Your task to perform on an android device: Show the shopping cart on amazon. Add bose quietcomfort 35 to the cart on amazon Image 0: 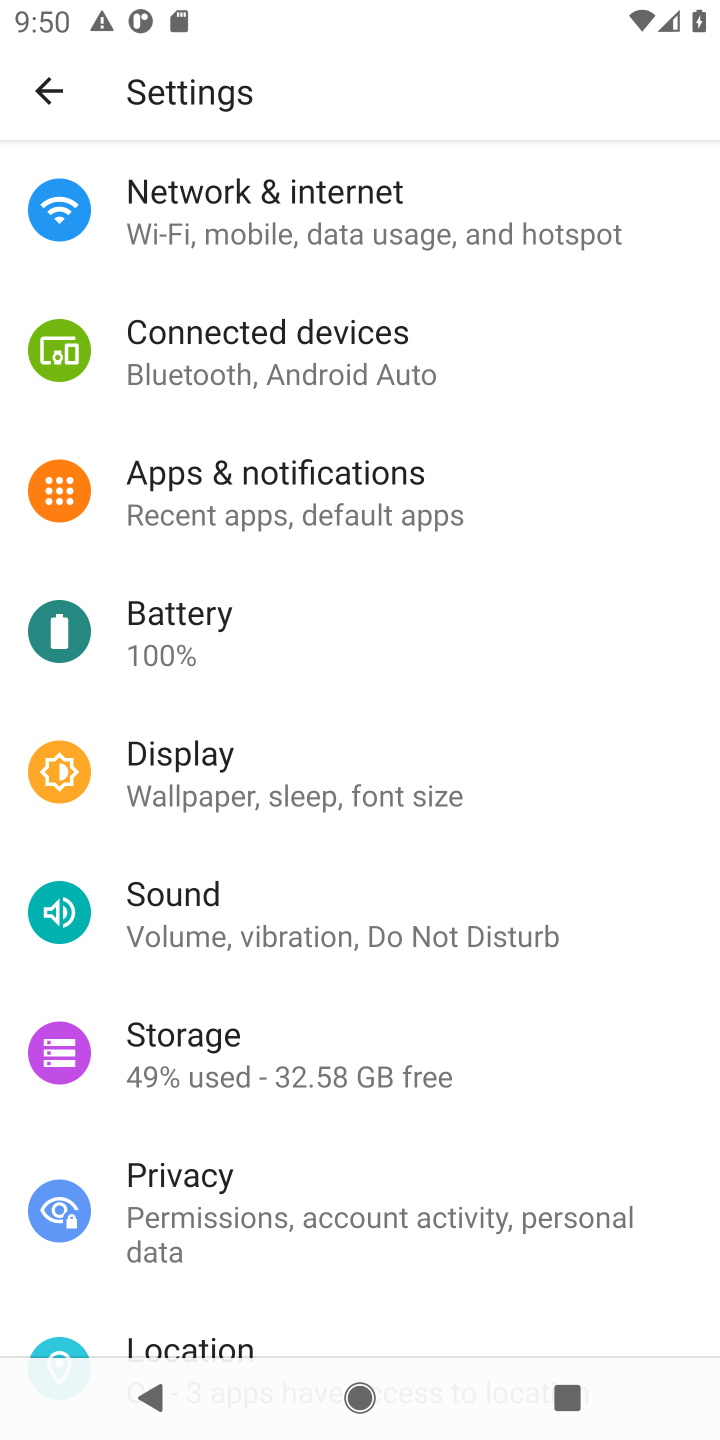
Step 0: press home button
Your task to perform on an android device: Show the shopping cart on amazon. Add bose quietcomfort 35 to the cart on amazon Image 1: 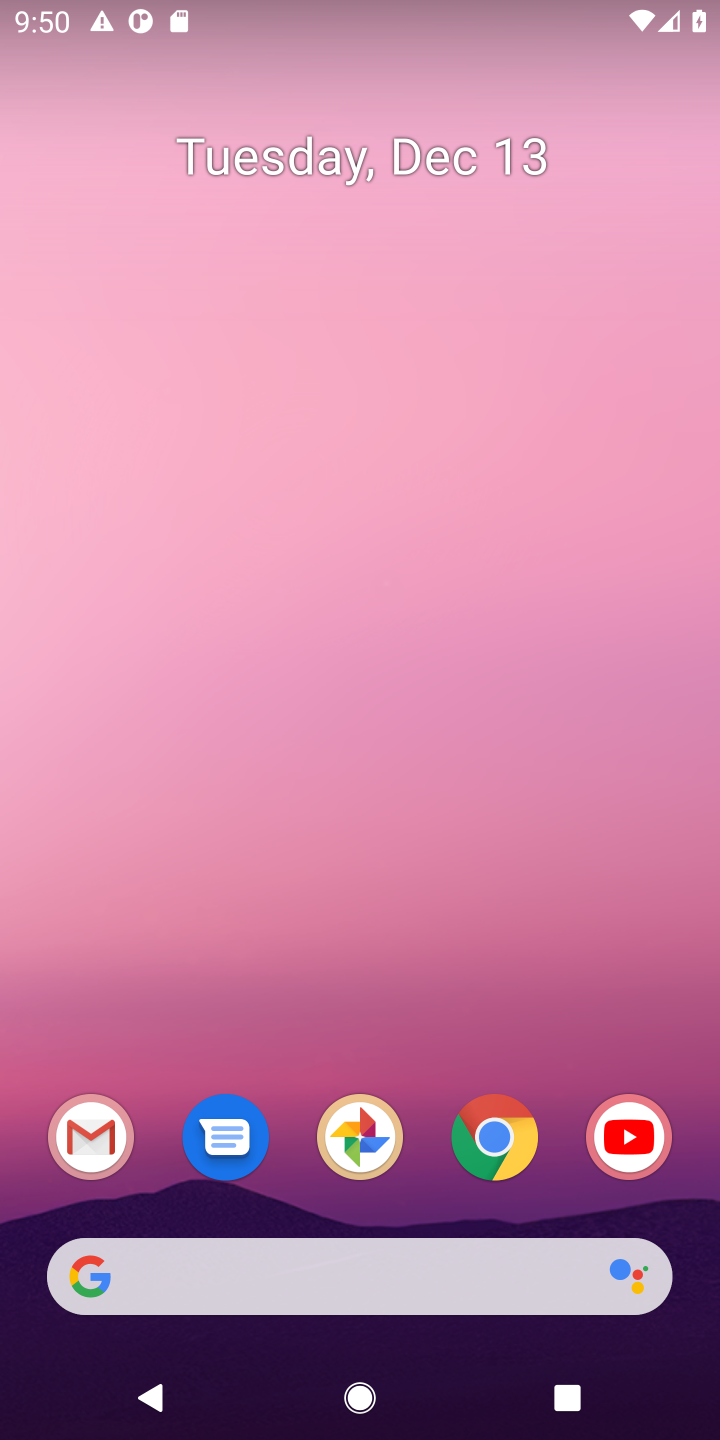
Step 1: click (513, 1141)
Your task to perform on an android device: Show the shopping cart on amazon. Add bose quietcomfort 35 to the cart on amazon Image 2: 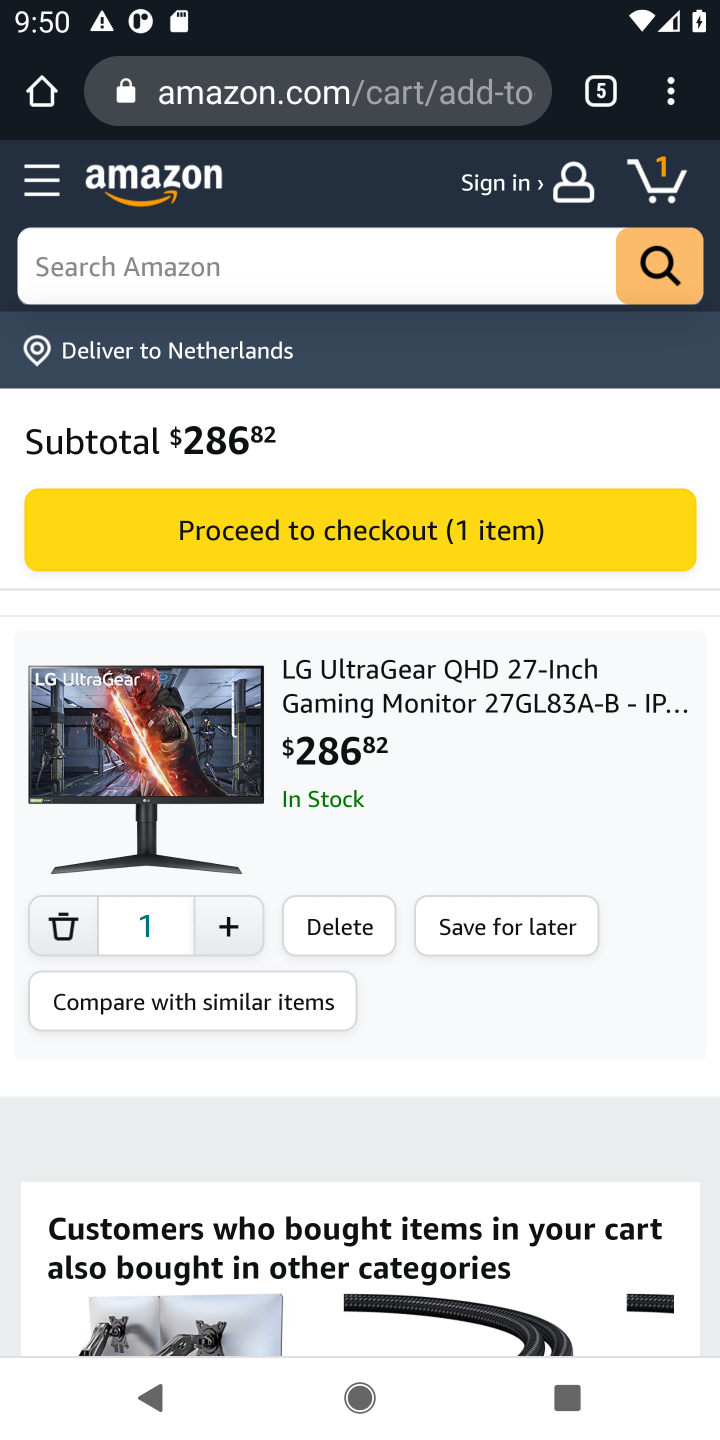
Step 2: click (482, 271)
Your task to perform on an android device: Show the shopping cart on amazon. Add bose quietcomfort 35 to the cart on amazon Image 3: 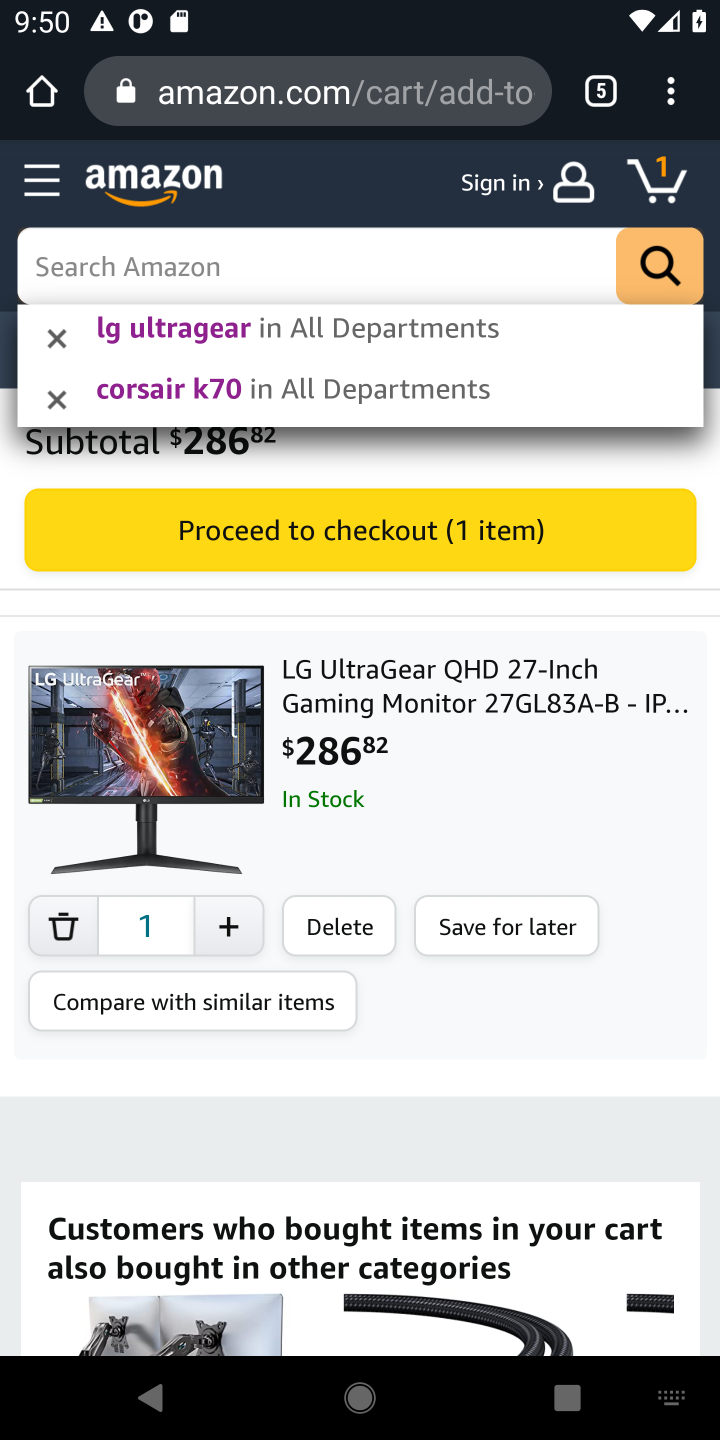
Step 3: type "bose quietcomfort 35"
Your task to perform on an android device: Show the shopping cart on amazon. Add bose quietcomfort 35 to the cart on amazon Image 4: 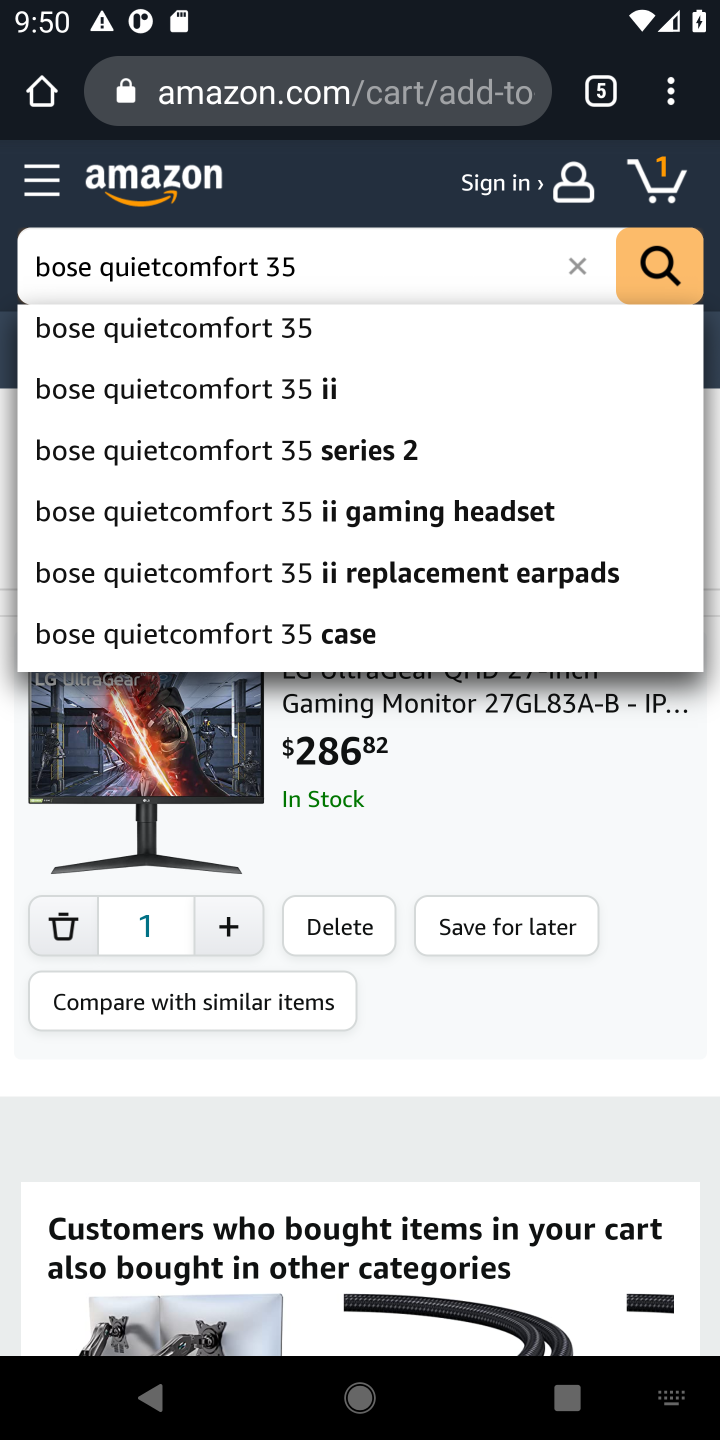
Step 4: click (258, 321)
Your task to perform on an android device: Show the shopping cart on amazon. Add bose quietcomfort 35 to the cart on amazon Image 5: 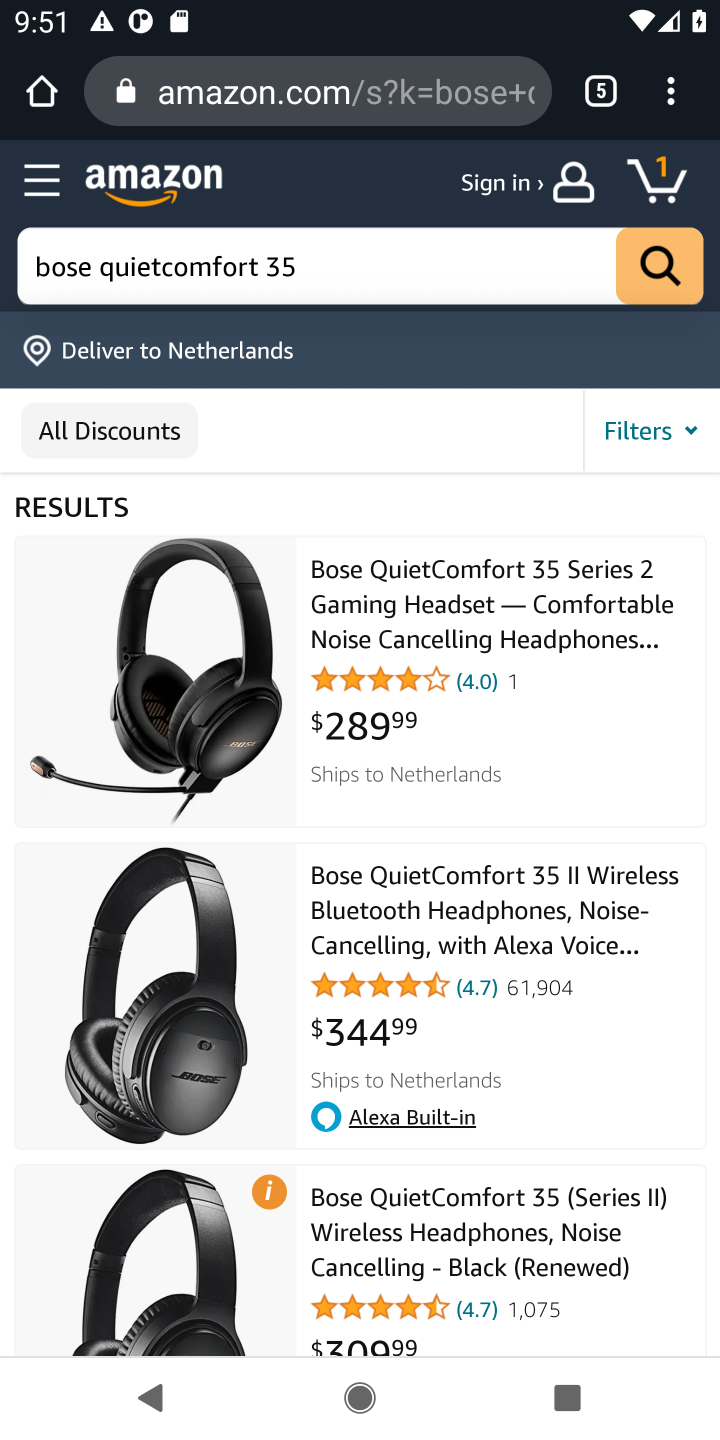
Step 5: click (411, 613)
Your task to perform on an android device: Show the shopping cart on amazon. Add bose quietcomfort 35 to the cart on amazon Image 6: 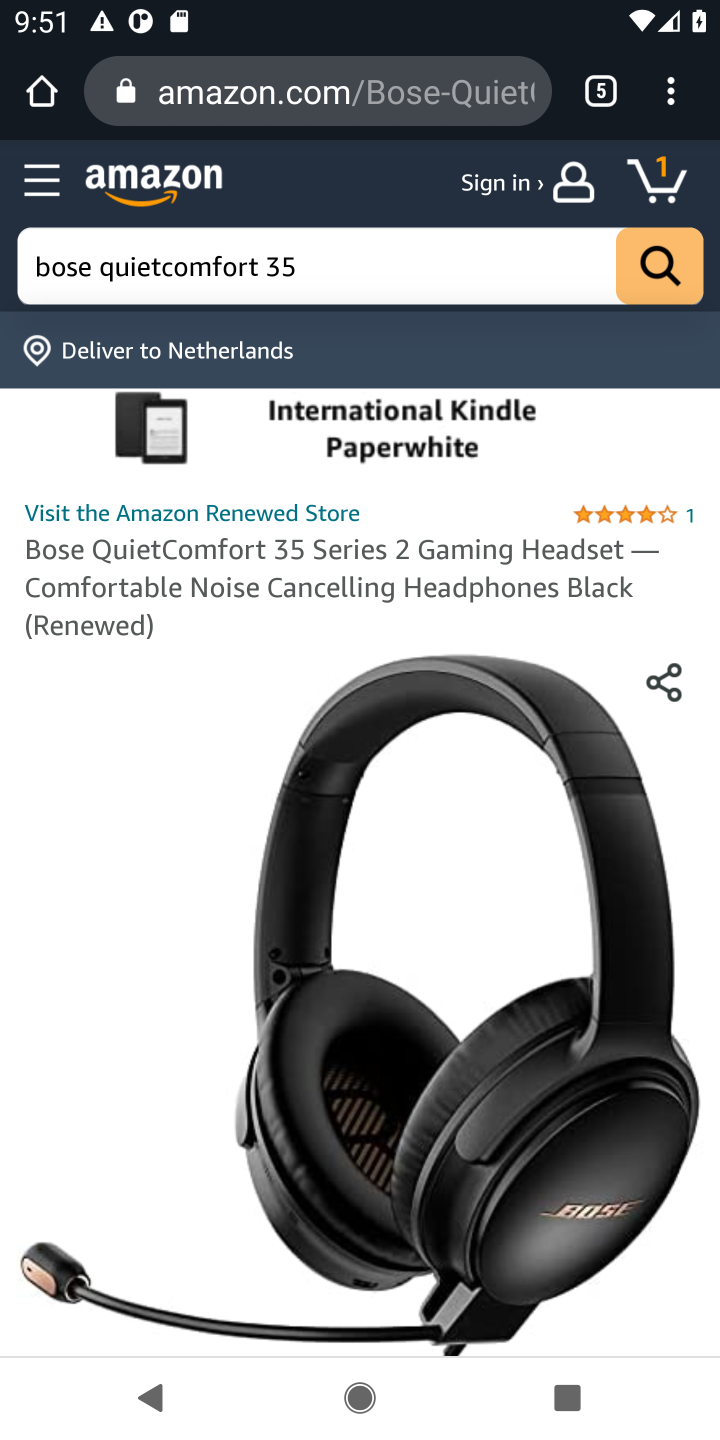
Step 6: drag from (366, 1254) to (589, 414)
Your task to perform on an android device: Show the shopping cart on amazon. Add bose quietcomfort 35 to the cart on amazon Image 7: 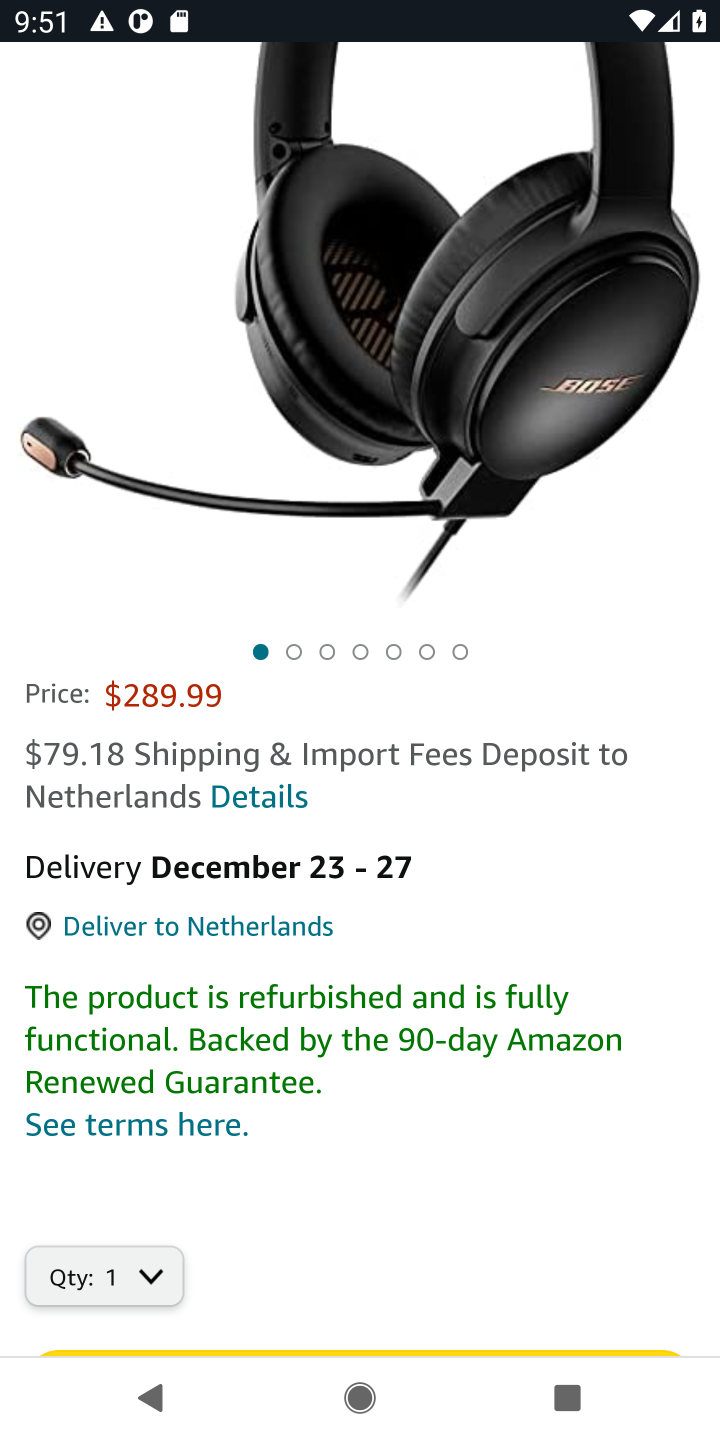
Step 7: drag from (414, 1100) to (513, 880)
Your task to perform on an android device: Show the shopping cart on amazon. Add bose quietcomfort 35 to the cart on amazon Image 8: 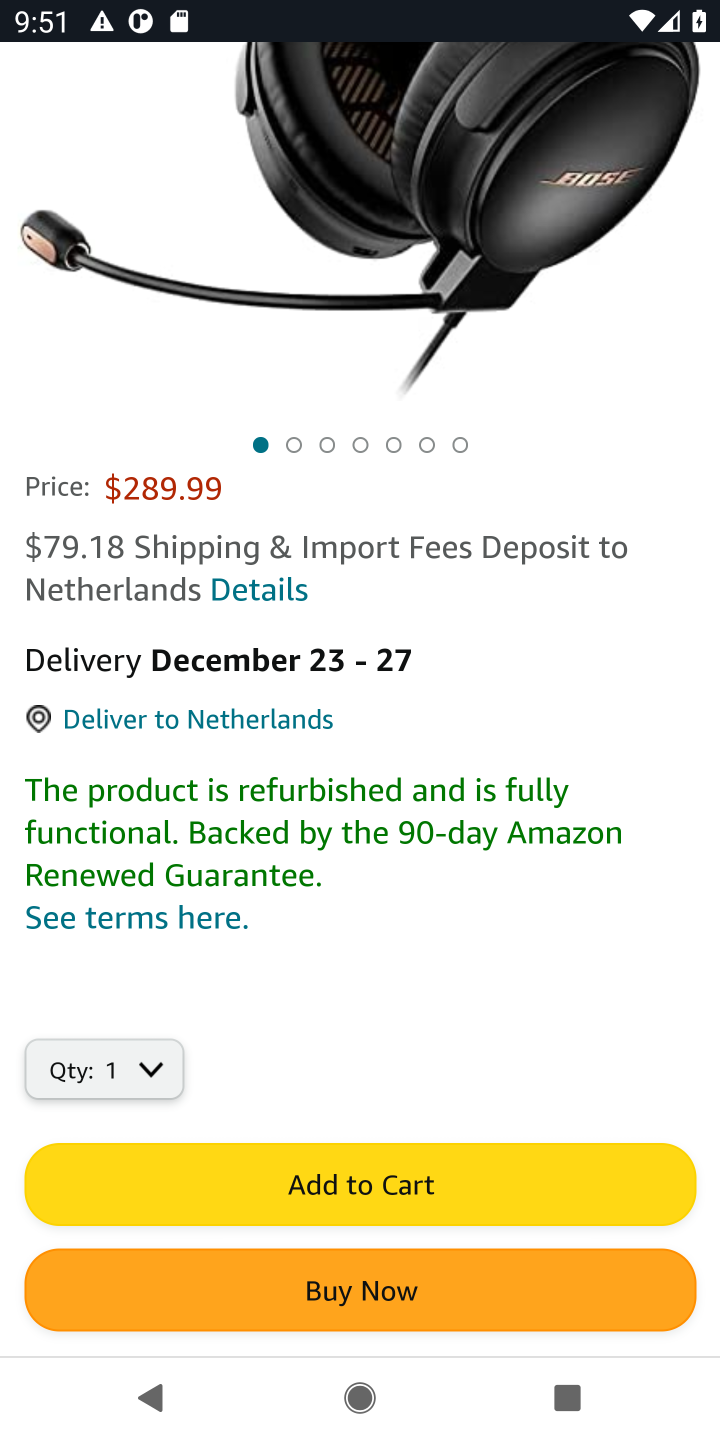
Step 8: click (311, 1185)
Your task to perform on an android device: Show the shopping cart on amazon. Add bose quietcomfort 35 to the cart on amazon Image 9: 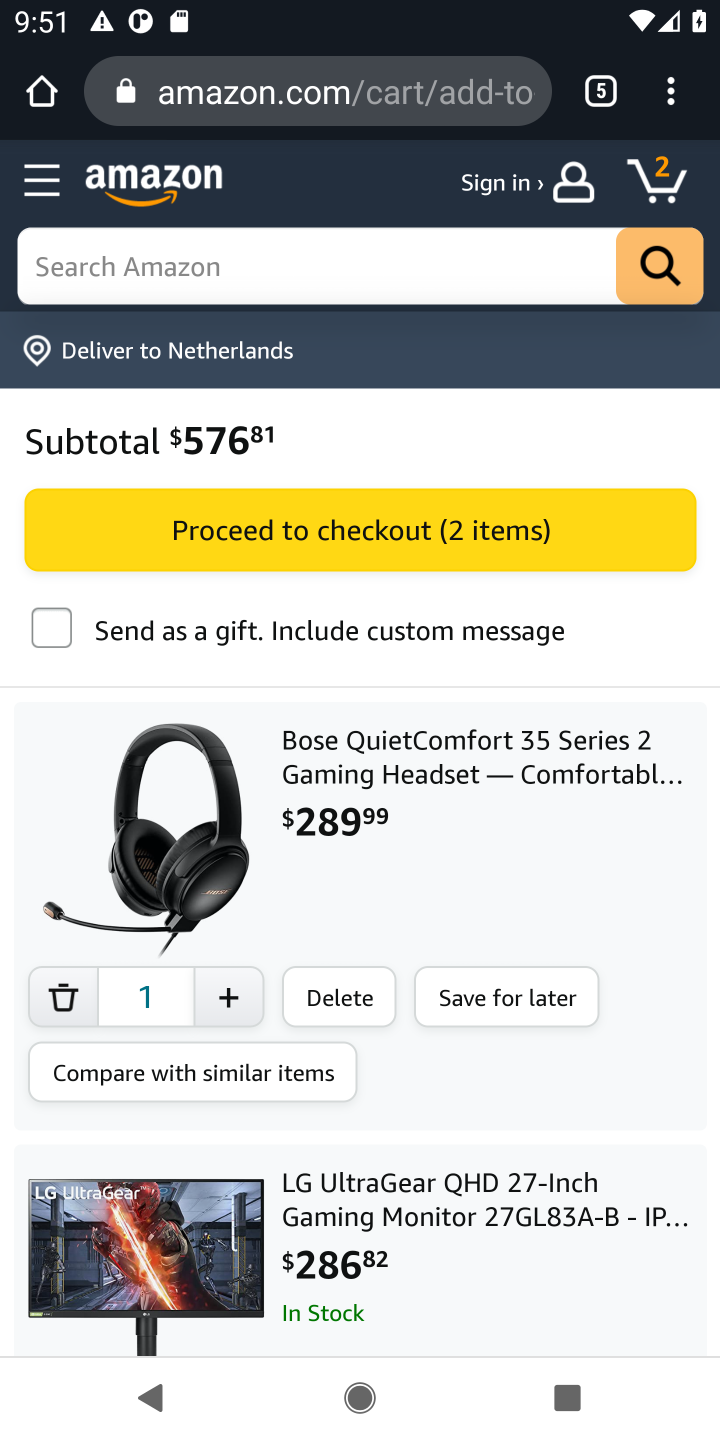
Step 9: task complete